Your task to perform on an android device: What's the weather going to be this weekend? Image 0: 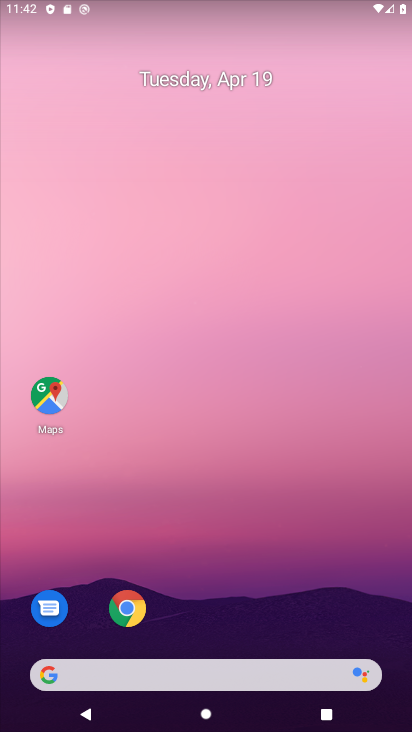
Step 0: drag from (225, 646) to (164, 67)
Your task to perform on an android device: What's the weather going to be this weekend? Image 1: 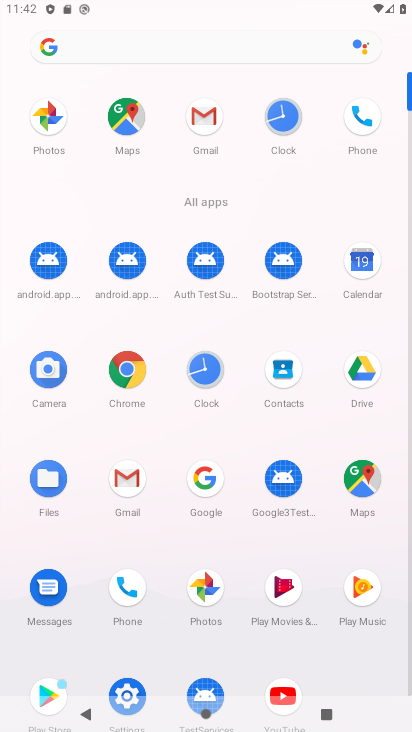
Step 1: click (191, 476)
Your task to perform on an android device: What's the weather going to be this weekend? Image 2: 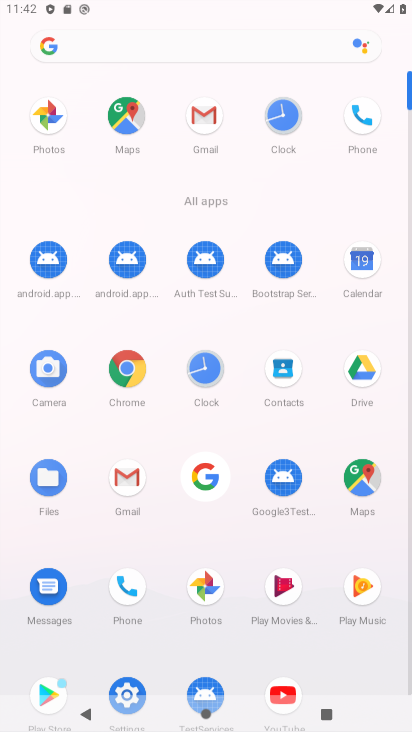
Step 2: click (202, 484)
Your task to perform on an android device: What's the weather going to be this weekend? Image 3: 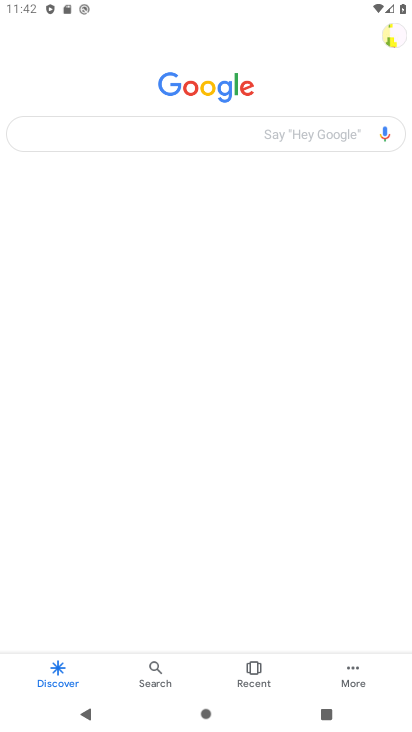
Step 3: click (167, 148)
Your task to perform on an android device: What's the weather going to be this weekend? Image 4: 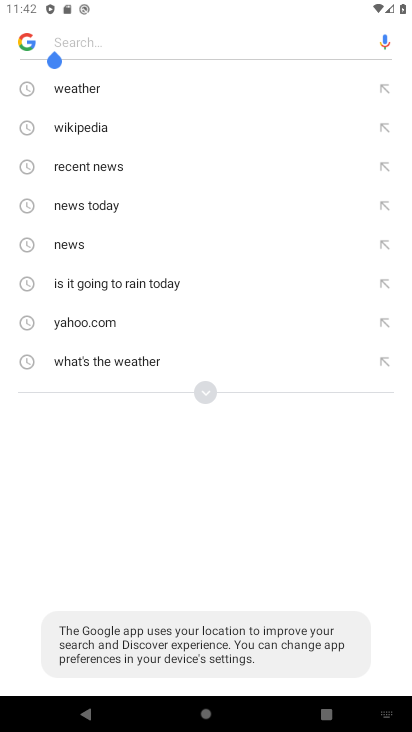
Step 4: click (97, 96)
Your task to perform on an android device: What's the weather going to be this weekend? Image 5: 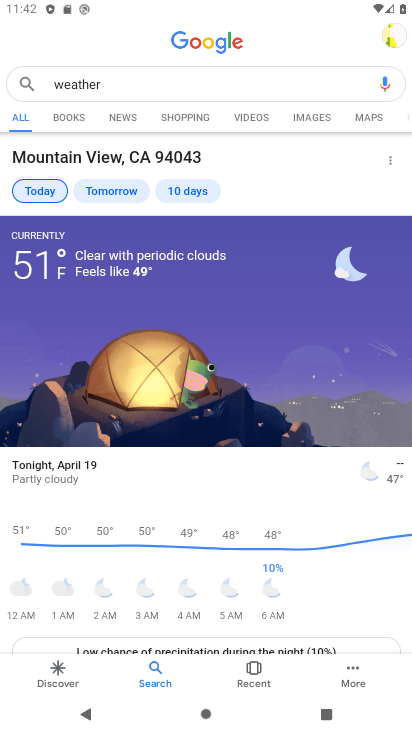
Step 5: task complete